Your task to perform on an android device: change alarm snooze length Image 0: 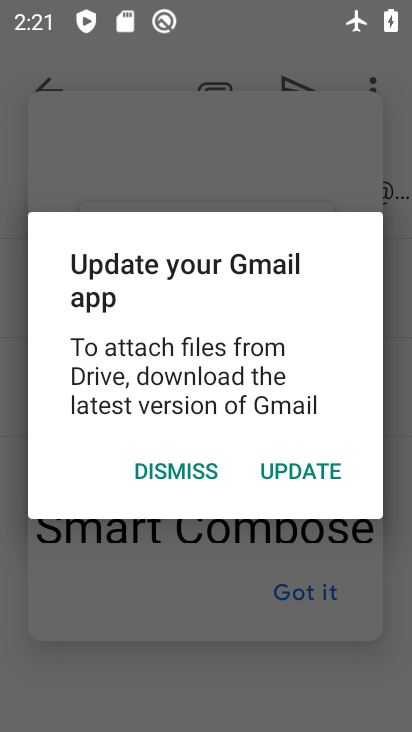
Step 0: press home button
Your task to perform on an android device: change alarm snooze length Image 1: 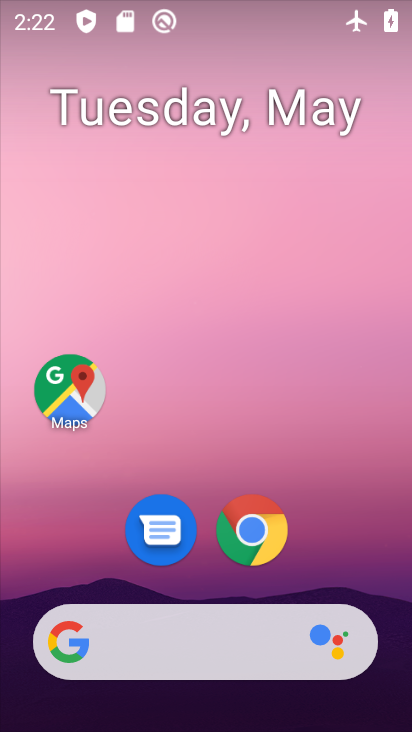
Step 1: drag from (217, 570) to (237, 248)
Your task to perform on an android device: change alarm snooze length Image 2: 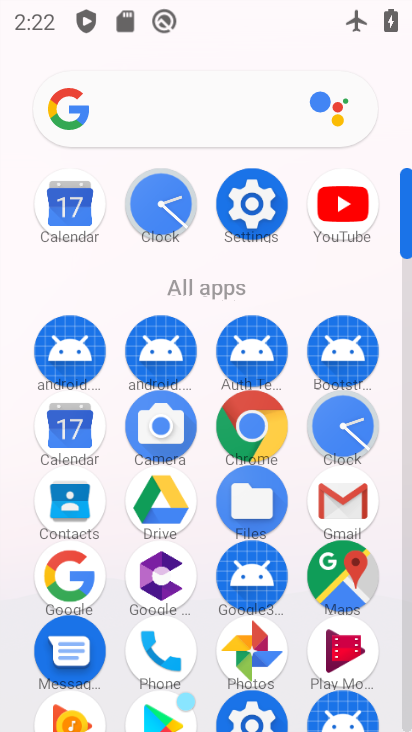
Step 2: click (320, 418)
Your task to perform on an android device: change alarm snooze length Image 3: 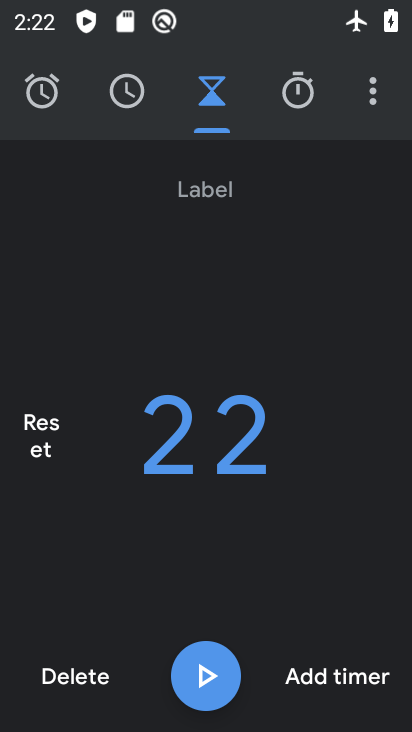
Step 3: click (365, 98)
Your task to perform on an android device: change alarm snooze length Image 4: 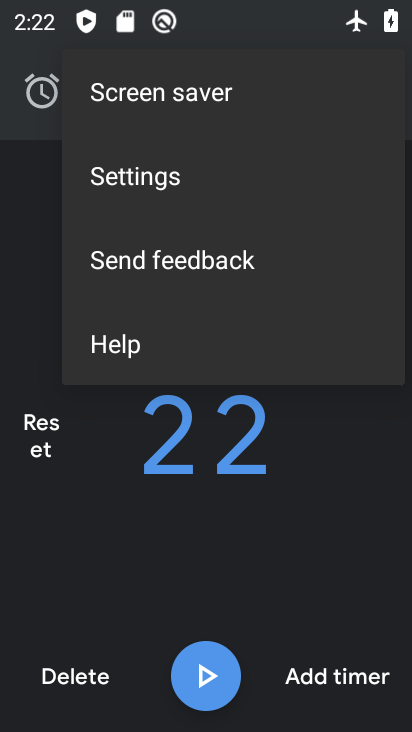
Step 4: click (148, 188)
Your task to perform on an android device: change alarm snooze length Image 5: 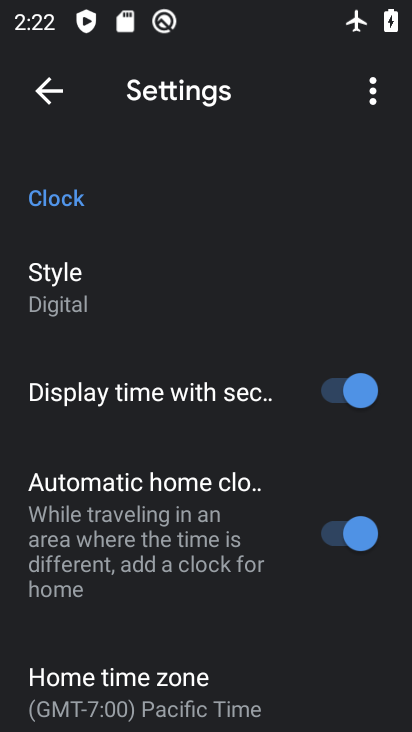
Step 5: drag from (182, 600) to (298, 192)
Your task to perform on an android device: change alarm snooze length Image 6: 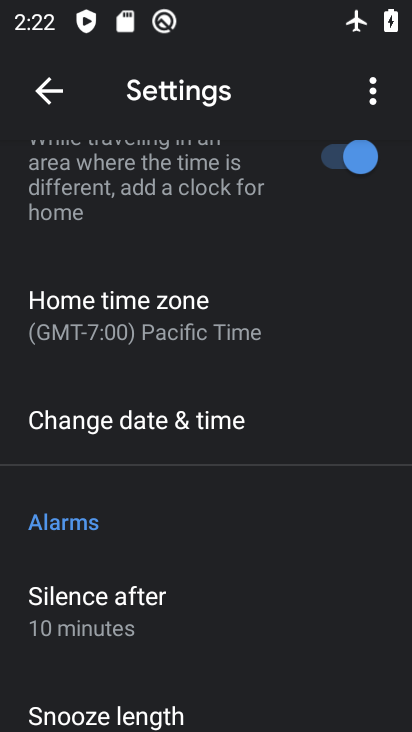
Step 6: drag from (174, 639) to (191, 465)
Your task to perform on an android device: change alarm snooze length Image 7: 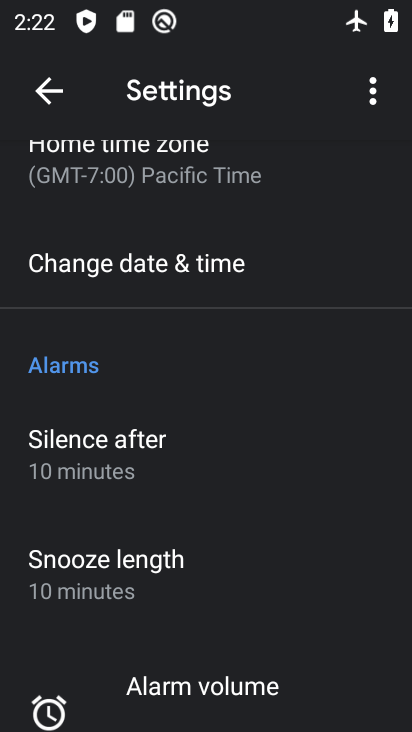
Step 7: click (174, 556)
Your task to perform on an android device: change alarm snooze length Image 8: 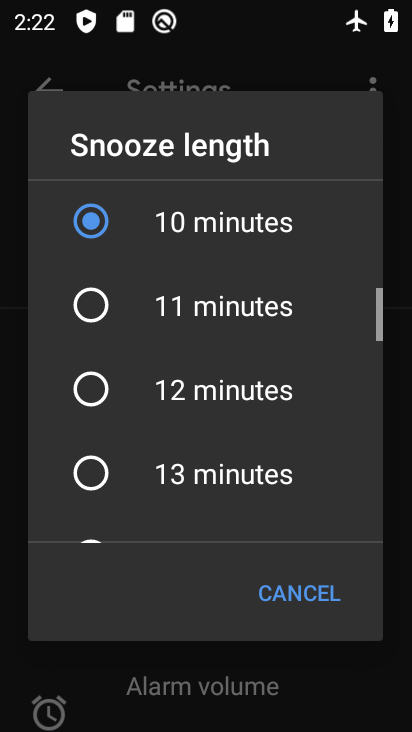
Step 8: click (186, 484)
Your task to perform on an android device: change alarm snooze length Image 9: 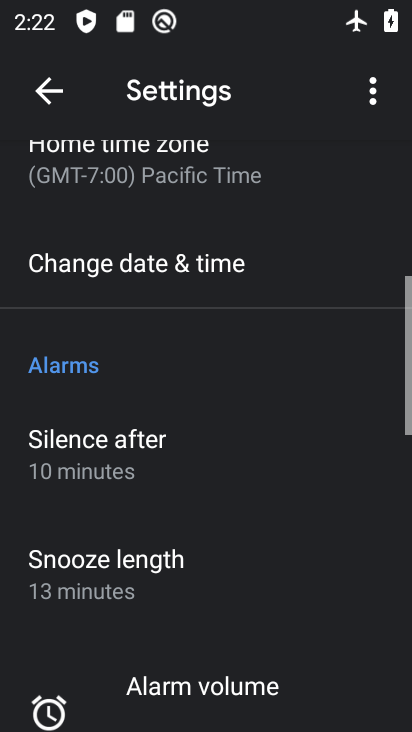
Step 9: task complete